Your task to perform on an android device: toggle show notifications on the lock screen Image 0: 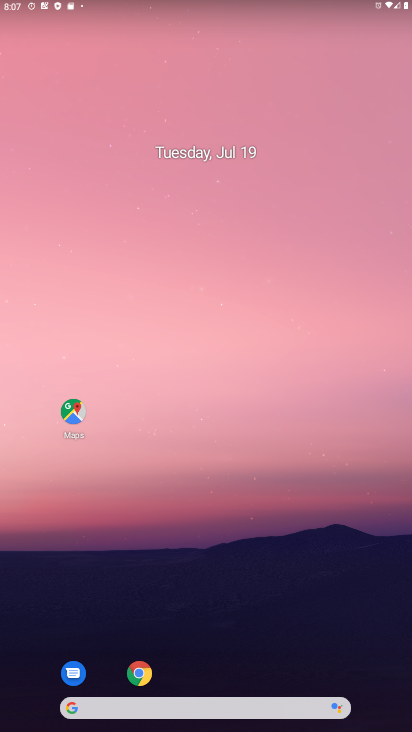
Step 0: drag from (220, 557) to (0, 287)
Your task to perform on an android device: toggle show notifications on the lock screen Image 1: 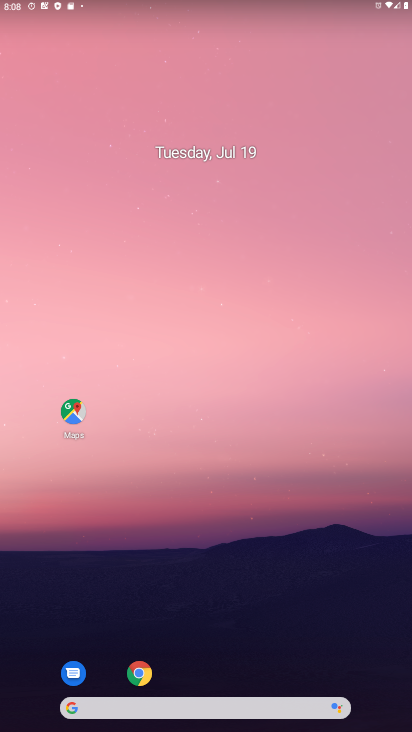
Step 1: drag from (287, 662) to (164, 15)
Your task to perform on an android device: toggle show notifications on the lock screen Image 2: 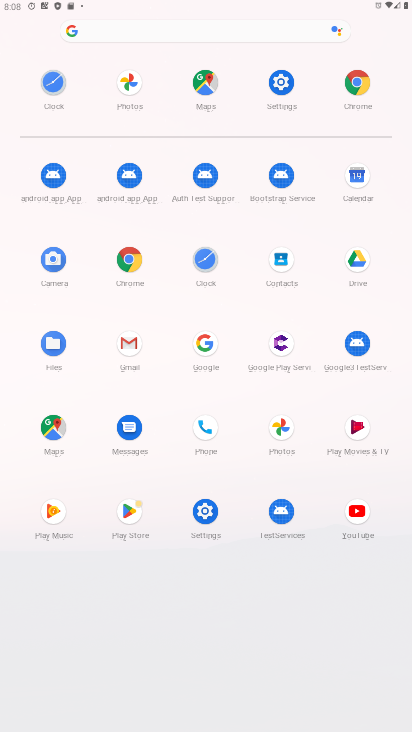
Step 2: click (281, 80)
Your task to perform on an android device: toggle show notifications on the lock screen Image 3: 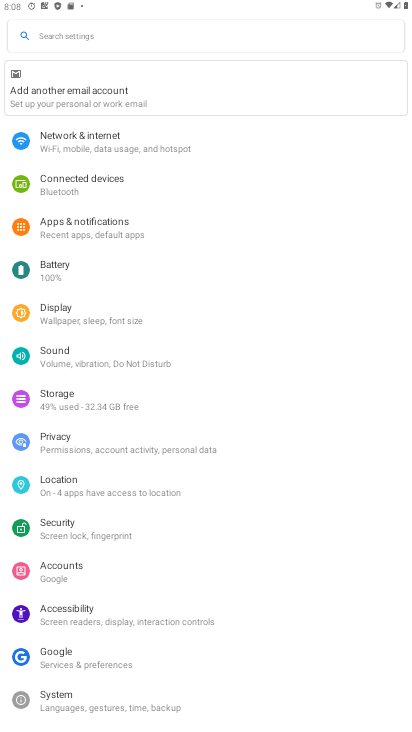
Step 3: click (126, 230)
Your task to perform on an android device: toggle show notifications on the lock screen Image 4: 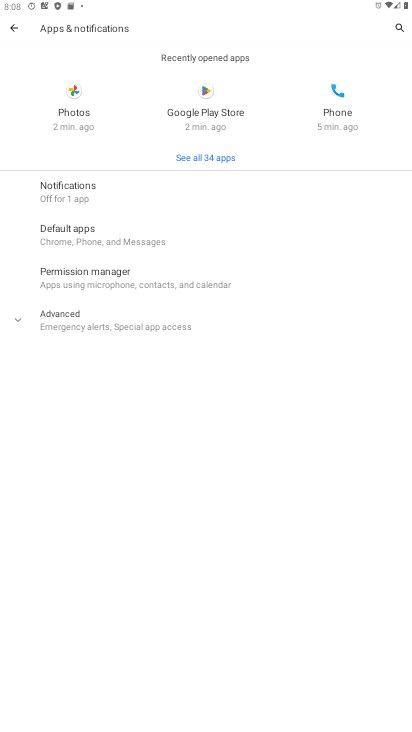
Step 4: click (73, 186)
Your task to perform on an android device: toggle show notifications on the lock screen Image 5: 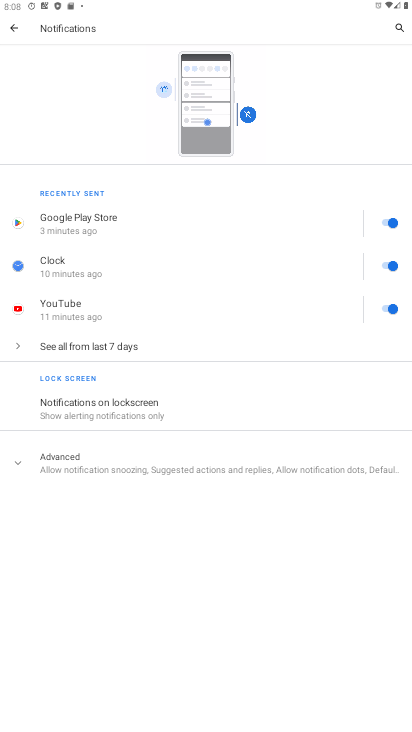
Step 5: click (104, 415)
Your task to perform on an android device: toggle show notifications on the lock screen Image 6: 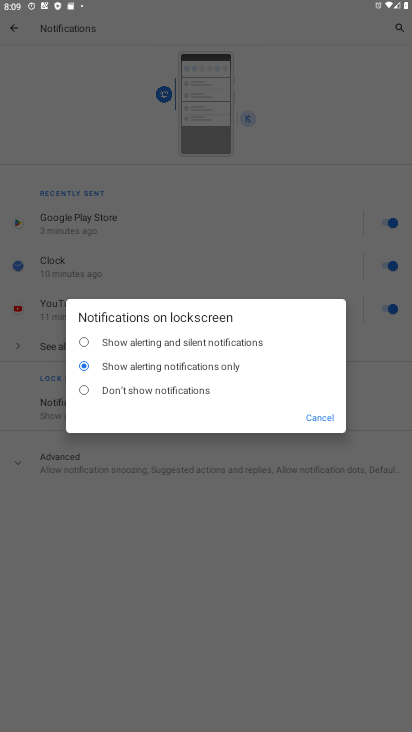
Step 6: click (114, 399)
Your task to perform on an android device: toggle show notifications on the lock screen Image 7: 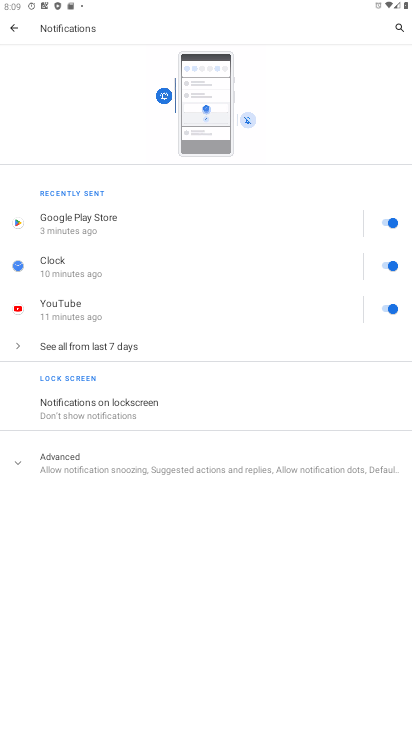
Step 7: task complete